Your task to perform on an android device: toggle translation in the chrome app Image 0: 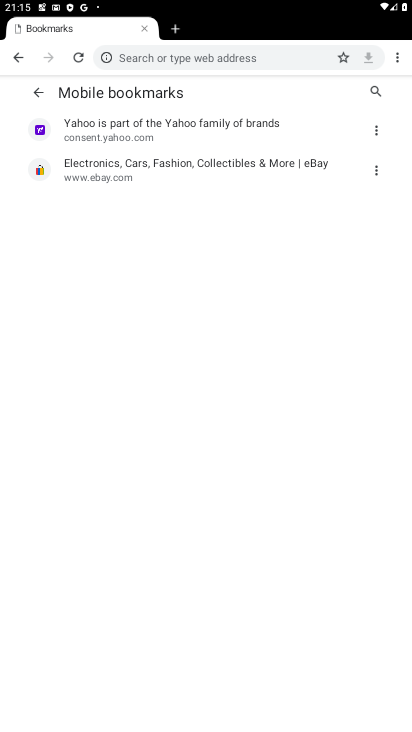
Step 0: press home button
Your task to perform on an android device: toggle translation in the chrome app Image 1: 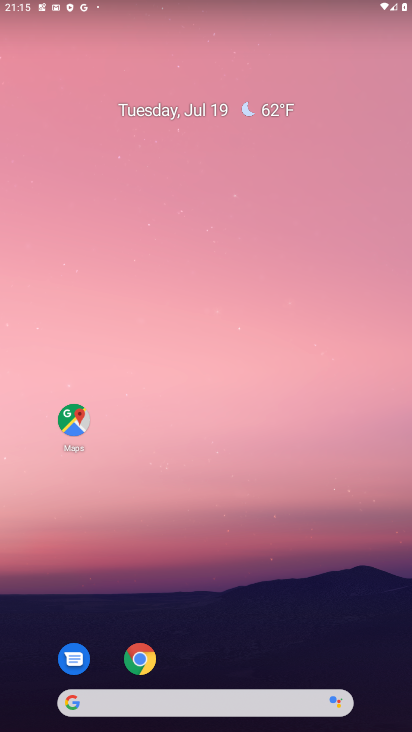
Step 1: click (149, 660)
Your task to perform on an android device: toggle translation in the chrome app Image 2: 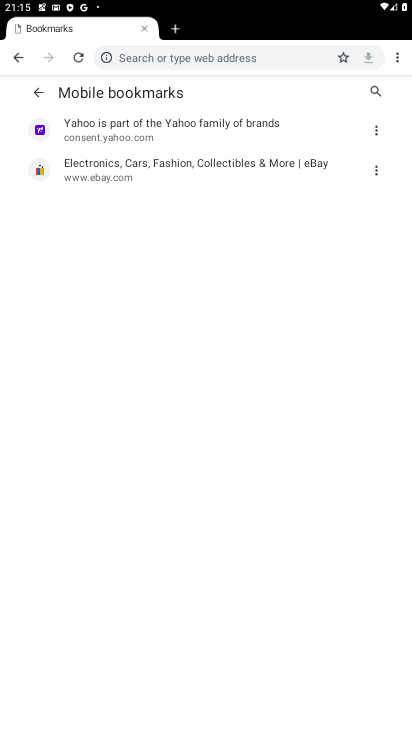
Step 2: click (395, 58)
Your task to perform on an android device: toggle translation in the chrome app Image 3: 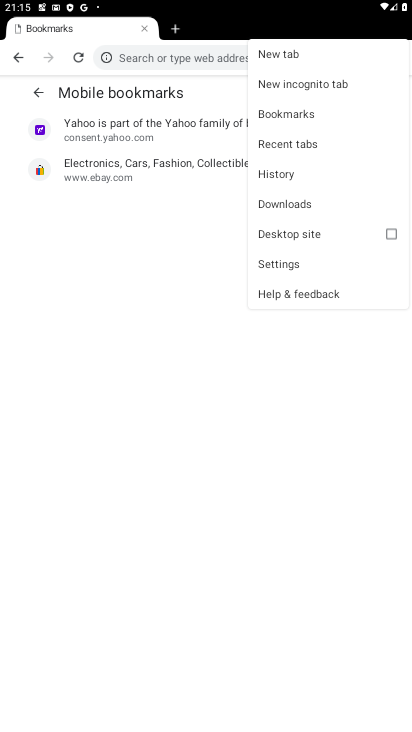
Step 3: click (293, 262)
Your task to perform on an android device: toggle translation in the chrome app Image 4: 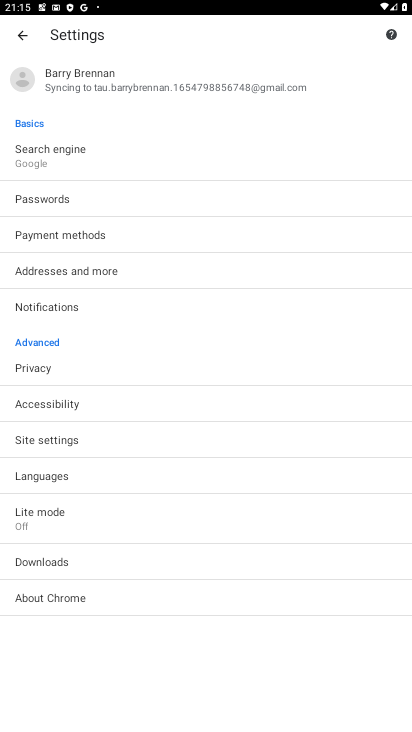
Step 4: click (37, 482)
Your task to perform on an android device: toggle translation in the chrome app Image 5: 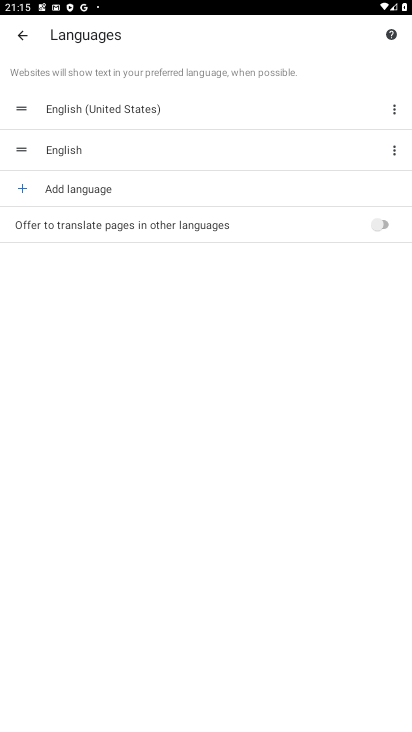
Step 5: click (316, 226)
Your task to perform on an android device: toggle translation in the chrome app Image 6: 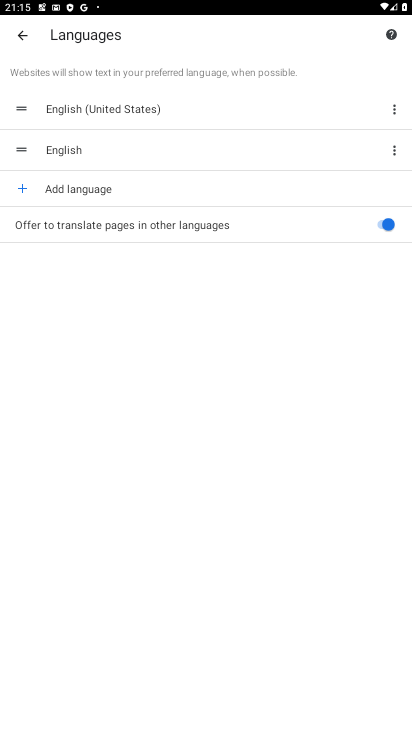
Step 6: task complete